Your task to perform on an android device: Do I have any events tomorrow? Image 0: 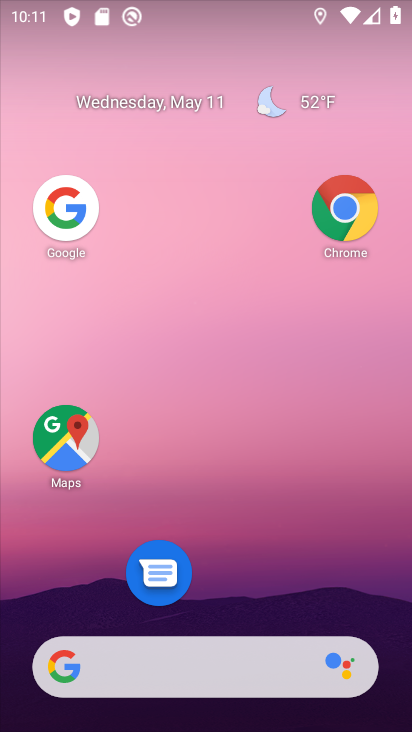
Step 0: drag from (206, 636) to (191, 108)
Your task to perform on an android device: Do I have any events tomorrow? Image 1: 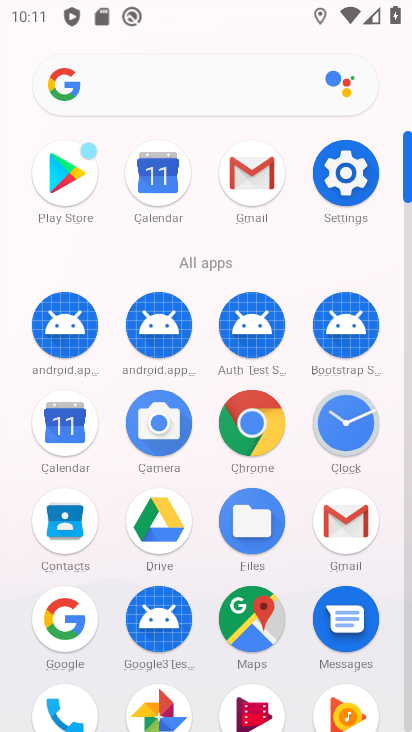
Step 1: click (157, 148)
Your task to perform on an android device: Do I have any events tomorrow? Image 2: 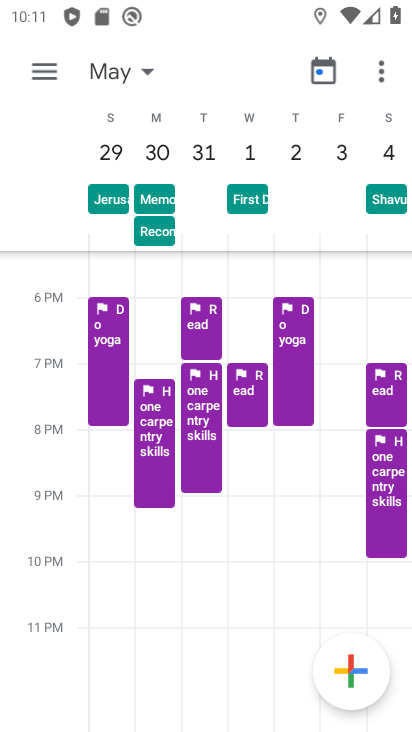
Step 2: click (308, 68)
Your task to perform on an android device: Do I have any events tomorrow? Image 3: 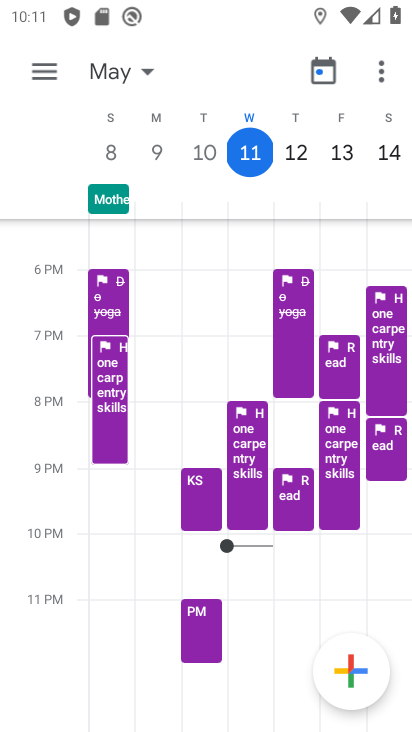
Step 3: click (289, 143)
Your task to perform on an android device: Do I have any events tomorrow? Image 4: 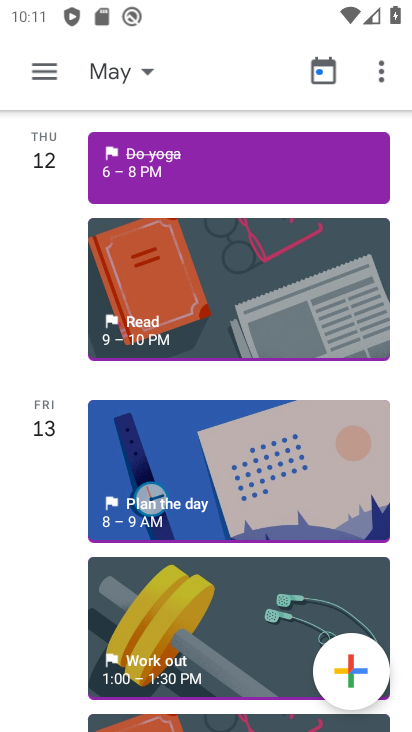
Step 4: task complete